Your task to perform on an android device: Open calendar and show me the first week of next month Image 0: 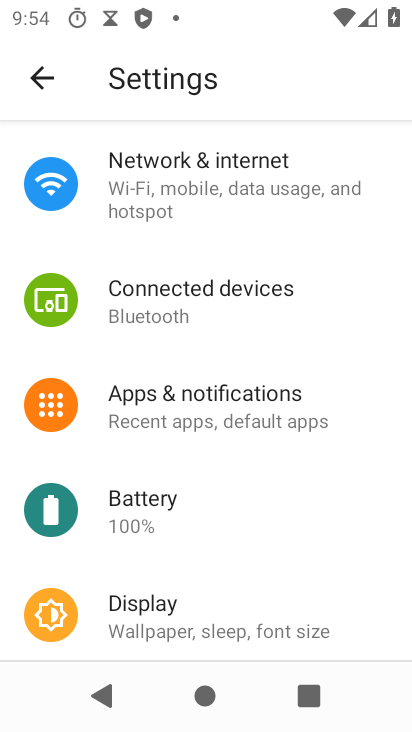
Step 0: press home button
Your task to perform on an android device: Open calendar and show me the first week of next month Image 1: 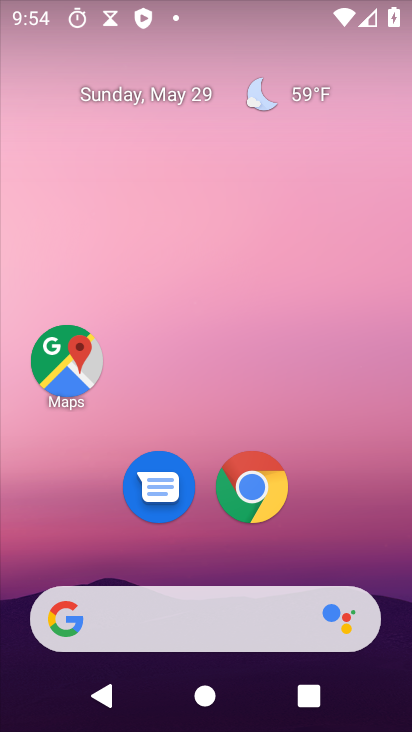
Step 1: drag from (300, 556) to (241, 103)
Your task to perform on an android device: Open calendar and show me the first week of next month Image 2: 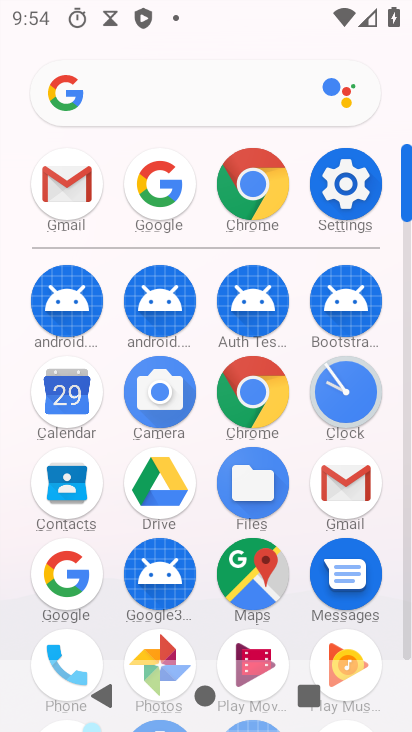
Step 2: click (66, 395)
Your task to perform on an android device: Open calendar and show me the first week of next month Image 3: 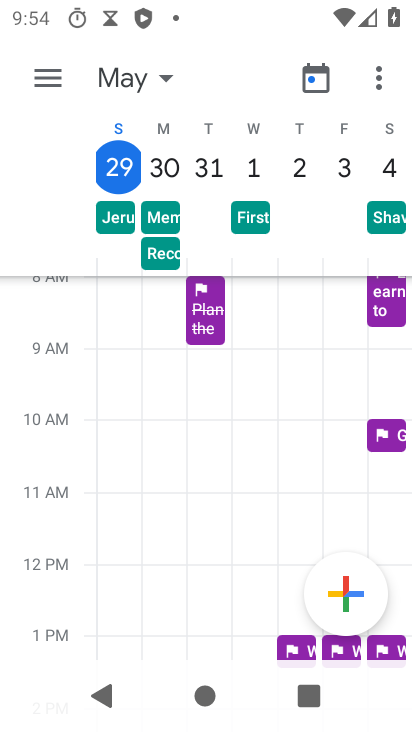
Step 3: click (319, 80)
Your task to perform on an android device: Open calendar and show me the first week of next month Image 4: 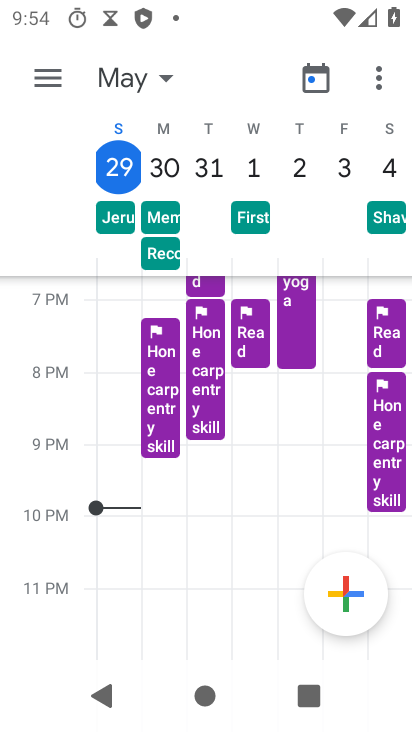
Step 4: click (167, 79)
Your task to perform on an android device: Open calendar and show me the first week of next month Image 5: 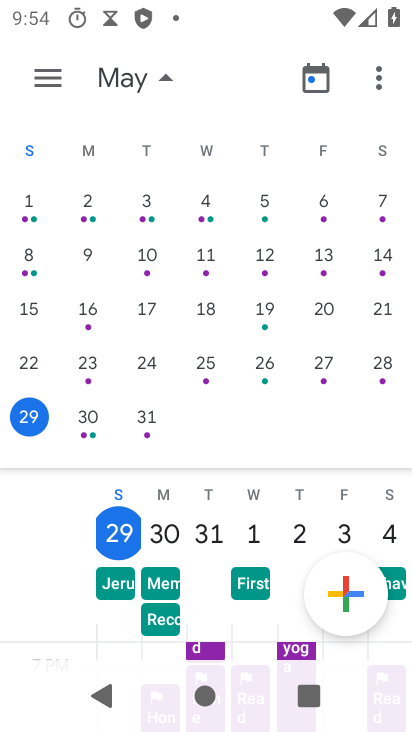
Step 5: drag from (359, 283) to (4, 339)
Your task to perform on an android device: Open calendar and show me the first week of next month Image 6: 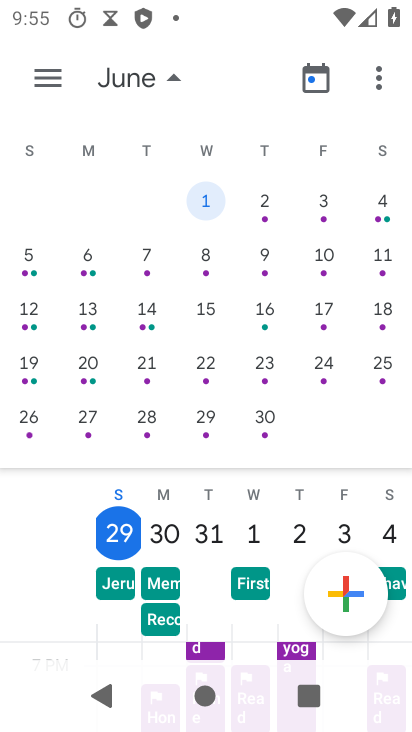
Step 6: click (86, 262)
Your task to perform on an android device: Open calendar and show me the first week of next month Image 7: 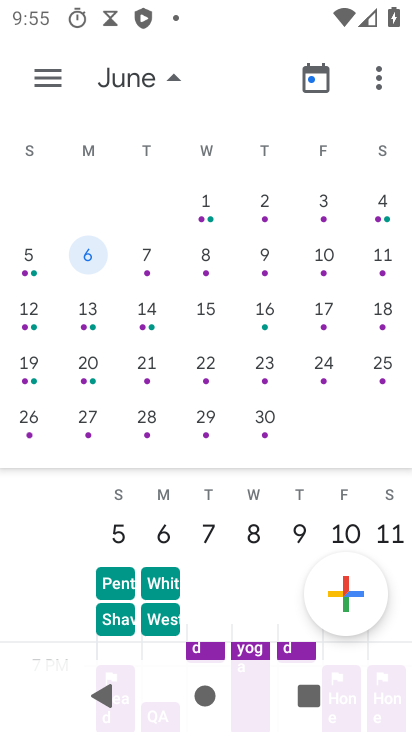
Step 7: click (40, 68)
Your task to perform on an android device: Open calendar and show me the first week of next month Image 8: 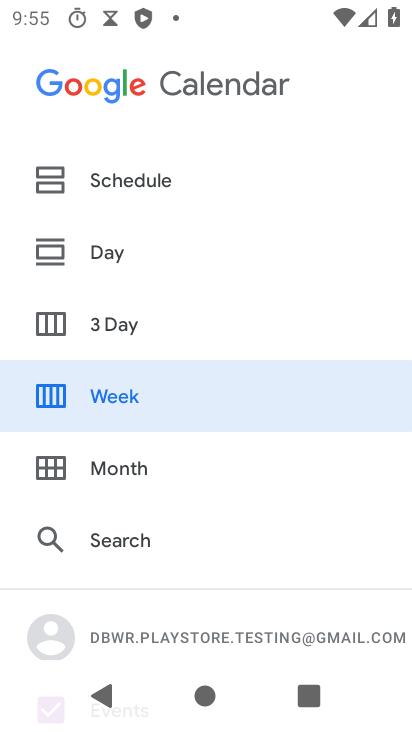
Step 8: click (69, 391)
Your task to perform on an android device: Open calendar and show me the first week of next month Image 9: 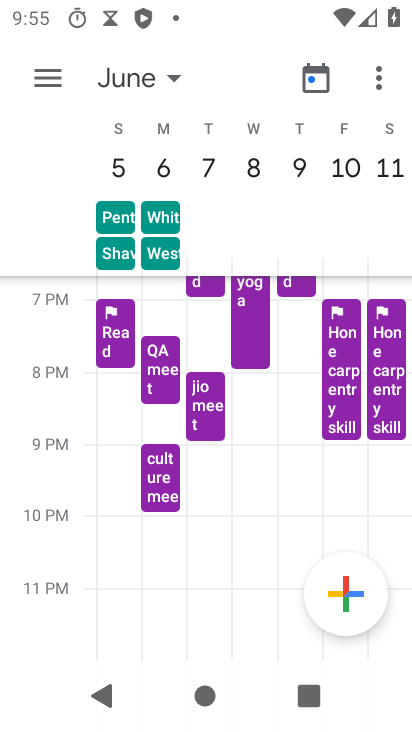
Step 9: task complete